Your task to perform on an android device: turn on airplane mode Image 0: 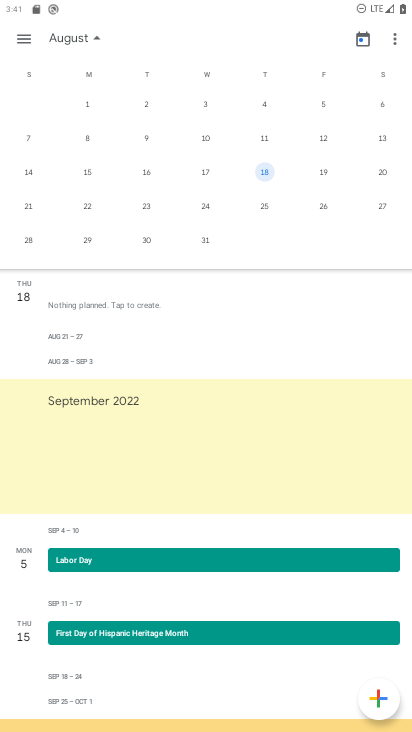
Step 0: press home button
Your task to perform on an android device: turn on airplane mode Image 1: 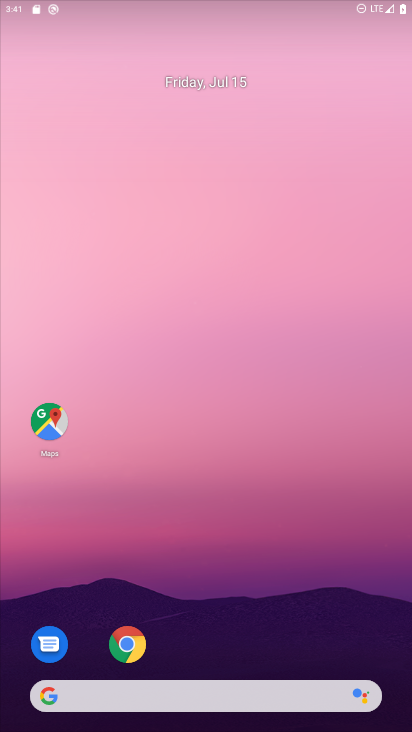
Step 1: task complete